Your task to perform on an android device: open app "Facebook Messenger" Image 0: 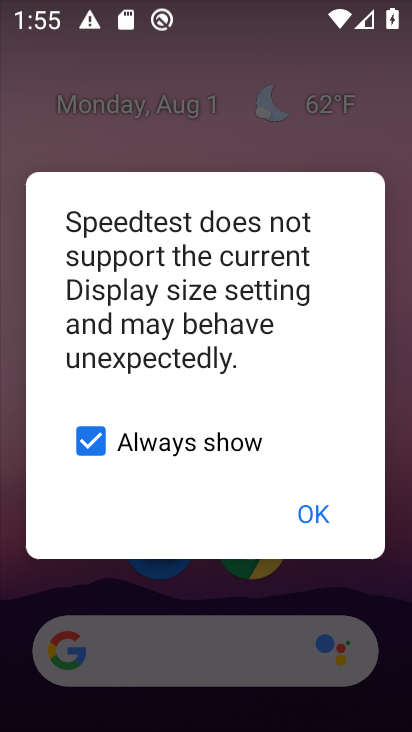
Step 0: click (307, 509)
Your task to perform on an android device: open app "Facebook Messenger" Image 1: 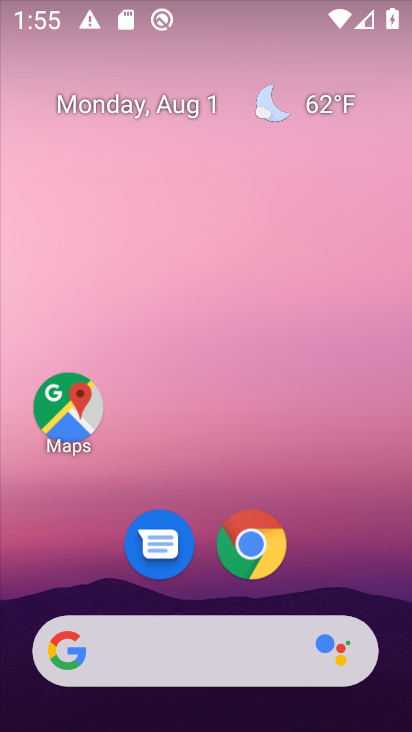
Step 1: drag from (378, 615) to (201, 55)
Your task to perform on an android device: open app "Facebook Messenger" Image 2: 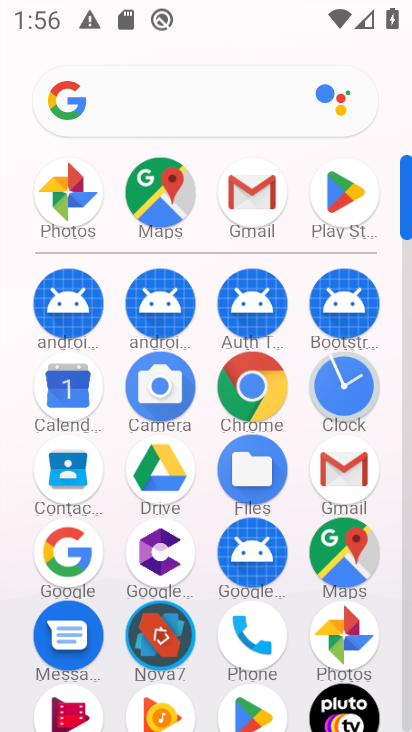
Step 2: click (330, 190)
Your task to perform on an android device: open app "Facebook Messenger" Image 3: 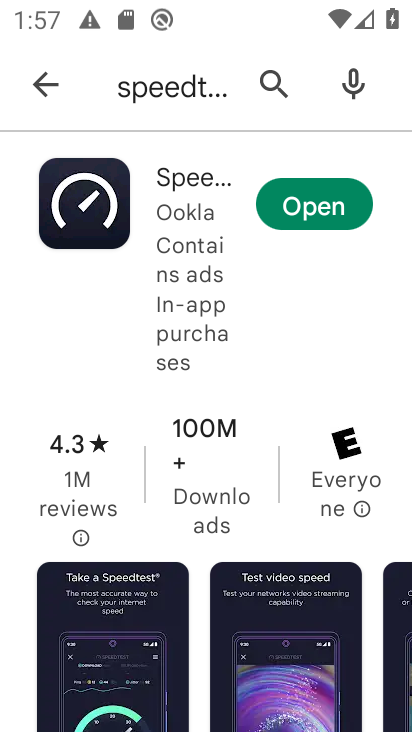
Step 3: press back button
Your task to perform on an android device: open app "Facebook Messenger" Image 4: 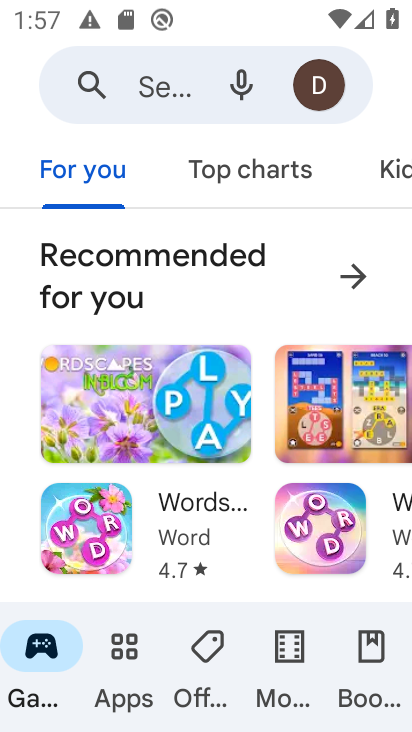
Step 4: click (156, 90)
Your task to perform on an android device: open app "Facebook Messenger" Image 5: 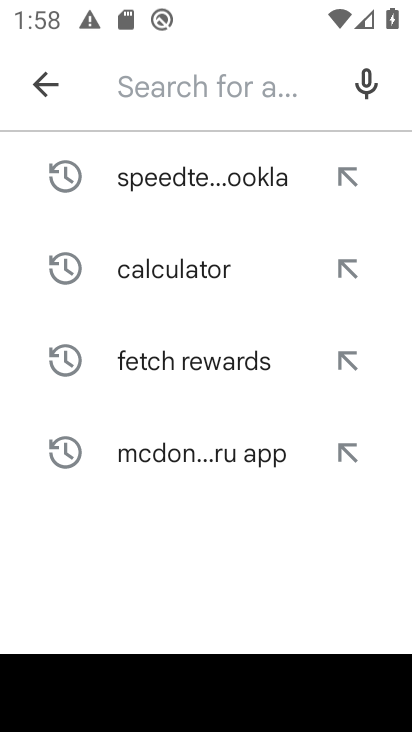
Step 5: type "Facebook Messenger"
Your task to perform on an android device: open app "Facebook Messenger" Image 6: 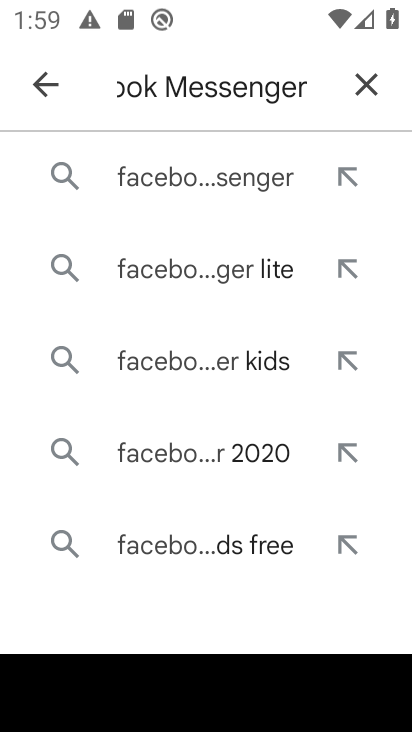
Step 6: click (174, 188)
Your task to perform on an android device: open app "Facebook Messenger" Image 7: 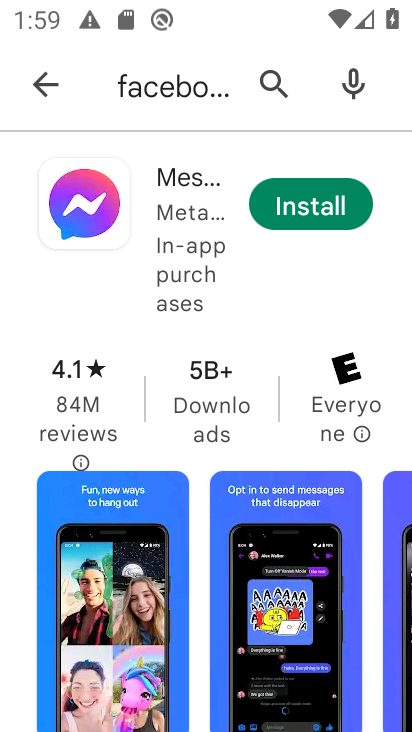
Step 7: task complete